Your task to perform on an android device: turn notification dots on Image 0: 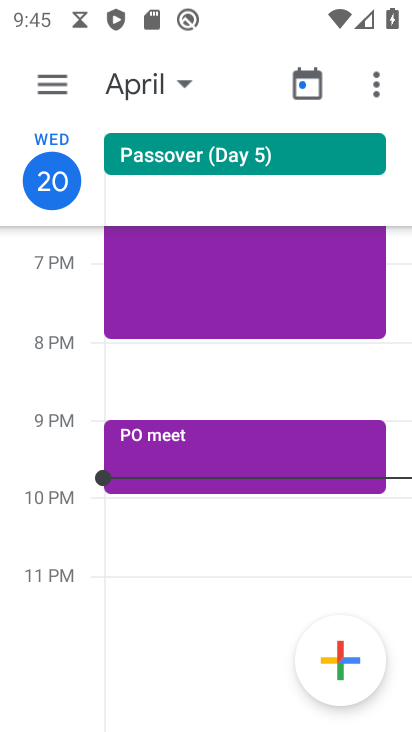
Step 0: press home button
Your task to perform on an android device: turn notification dots on Image 1: 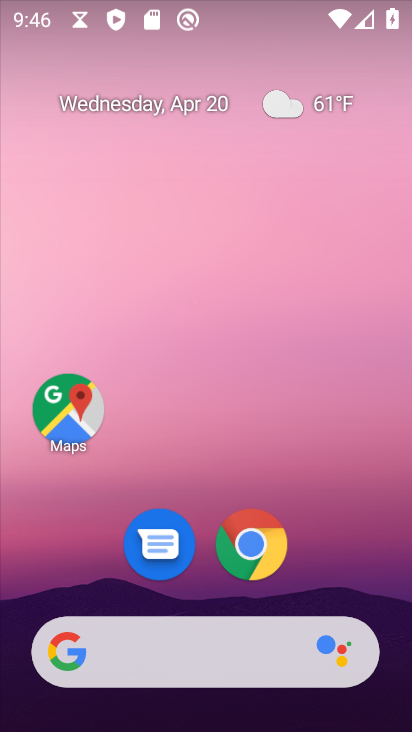
Step 1: drag from (193, 646) to (362, 106)
Your task to perform on an android device: turn notification dots on Image 2: 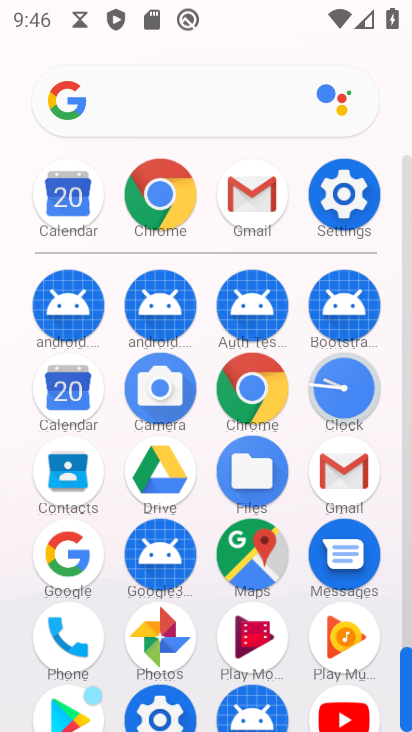
Step 2: click (348, 207)
Your task to perform on an android device: turn notification dots on Image 3: 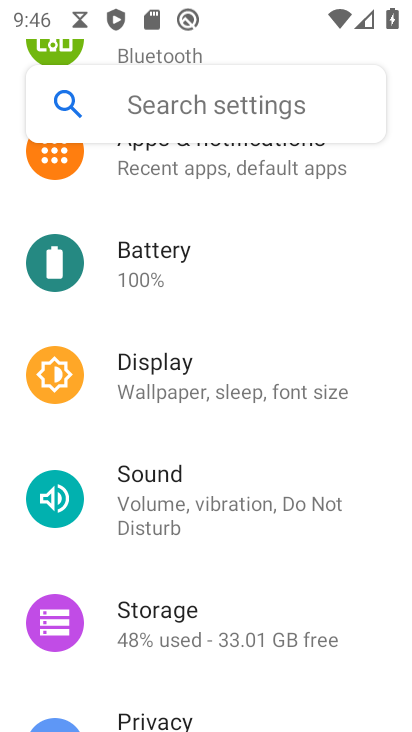
Step 3: drag from (285, 239) to (222, 557)
Your task to perform on an android device: turn notification dots on Image 4: 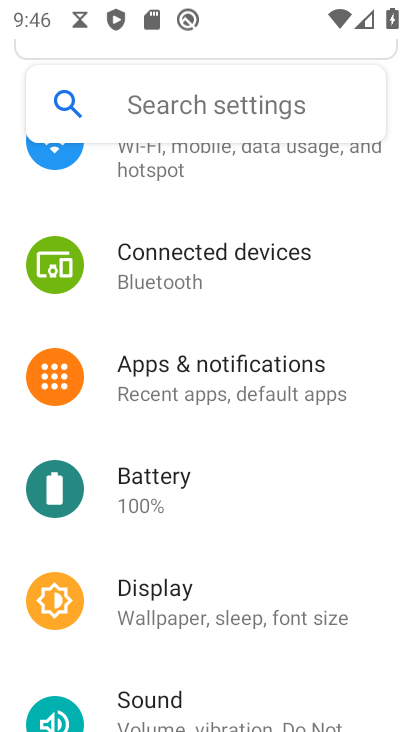
Step 4: click (210, 369)
Your task to perform on an android device: turn notification dots on Image 5: 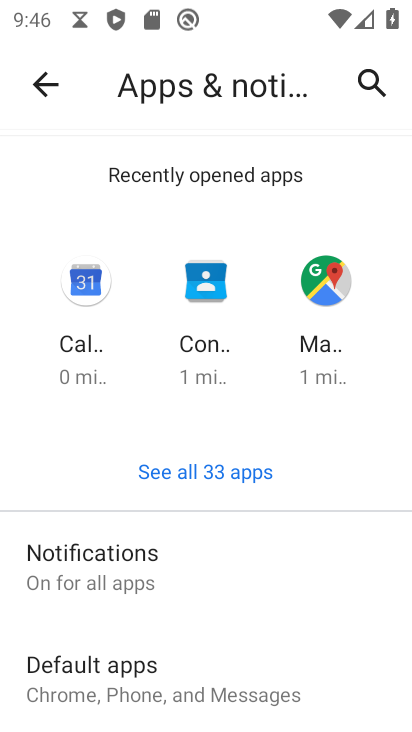
Step 5: click (134, 559)
Your task to perform on an android device: turn notification dots on Image 6: 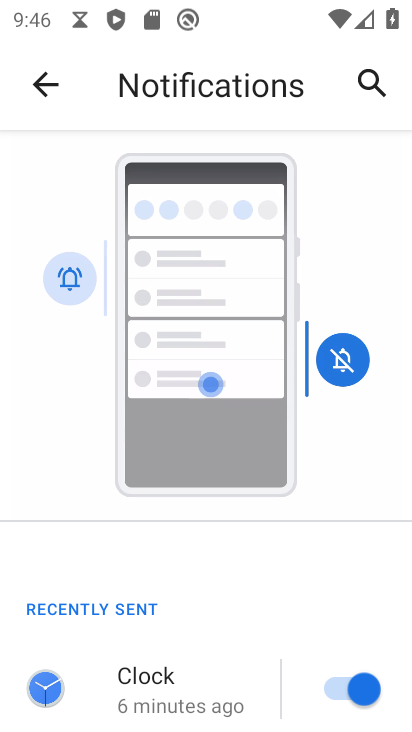
Step 6: drag from (158, 639) to (350, 165)
Your task to perform on an android device: turn notification dots on Image 7: 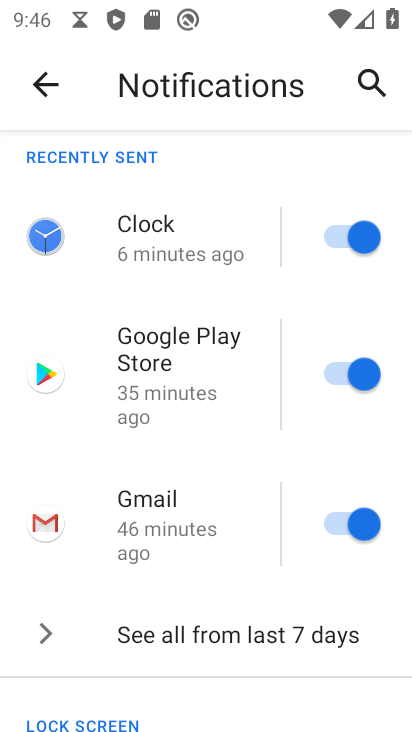
Step 7: drag from (230, 589) to (332, 231)
Your task to perform on an android device: turn notification dots on Image 8: 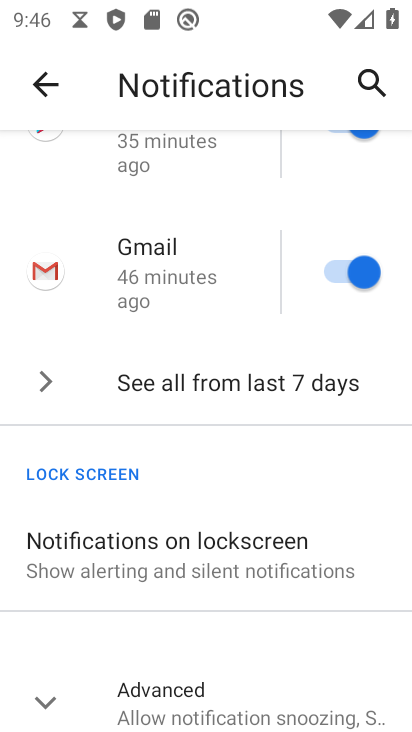
Step 8: drag from (219, 502) to (279, 204)
Your task to perform on an android device: turn notification dots on Image 9: 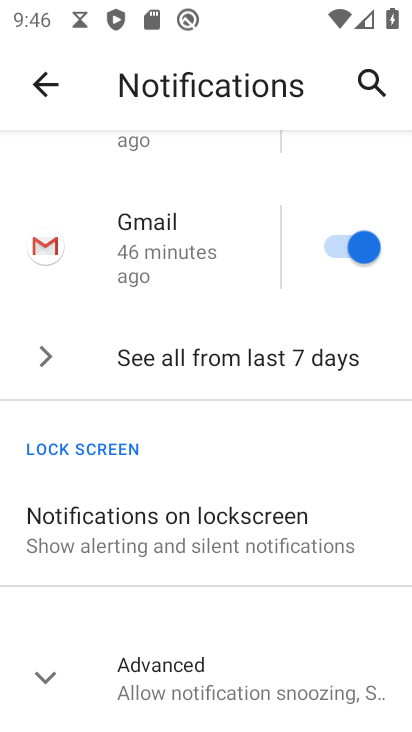
Step 9: click (166, 667)
Your task to perform on an android device: turn notification dots on Image 10: 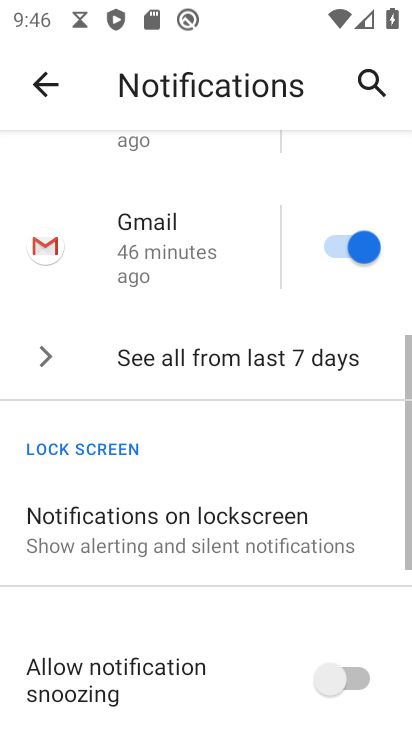
Step 10: task complete